Your task to perform on an android device: check android version Image 0: 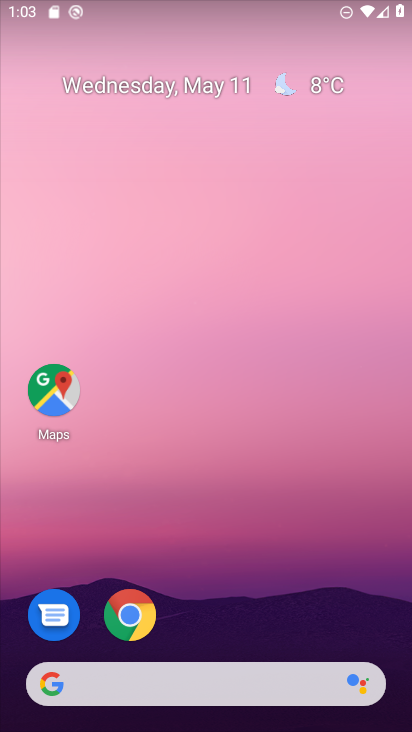
Step 0: drag from (312, 554) to (320, 66)
Your task to perform on an android device: check android version Image 1: 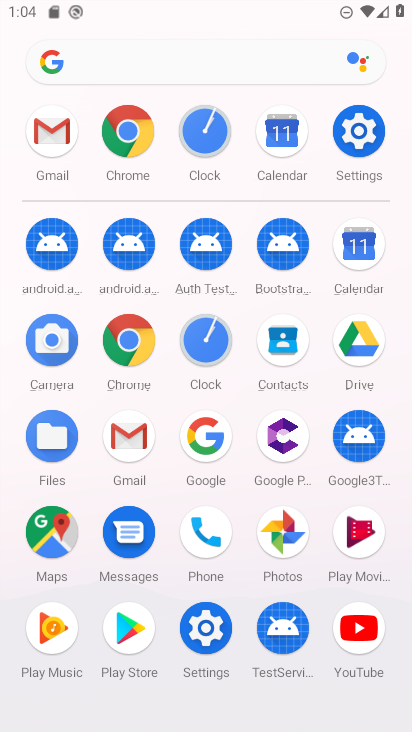
Step 1: click (353, 133)
Your task to perform on an android device: check android version Image 2: 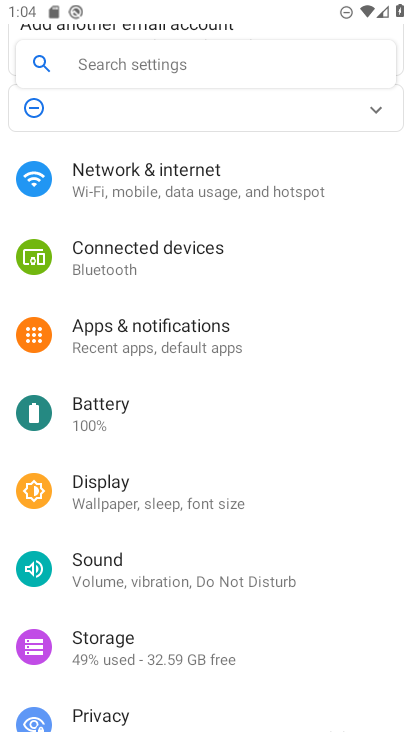
Step 2: drag from (217, 581) to (222, 206)
Your task to perform on an android device: check android version Image 3: 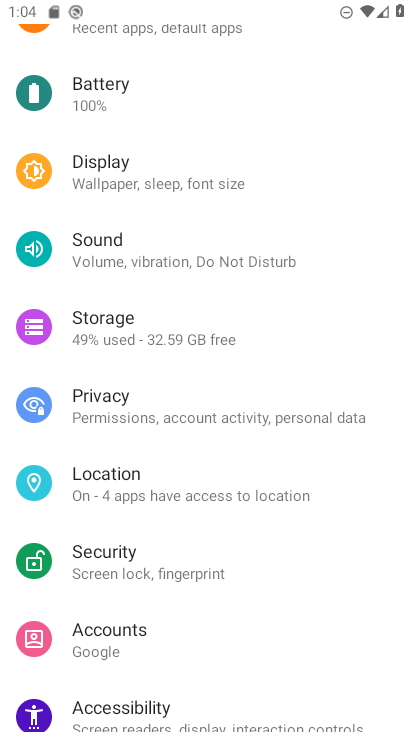
Step 3: drag from (102, 658) to (144, 287)
Your task to perform on an android device: check android version Image 4: 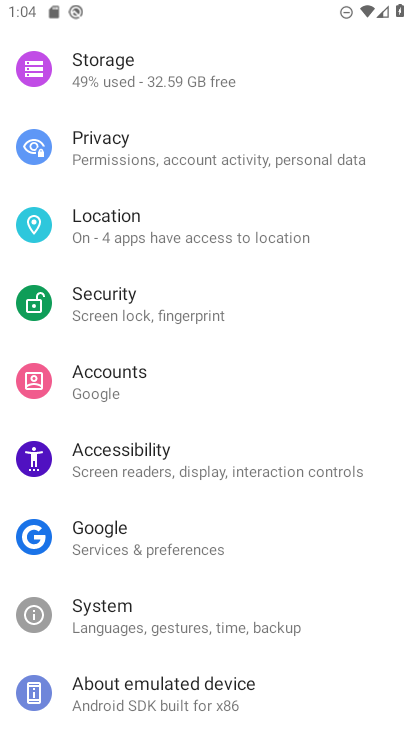
Step 4: drag from (165, 628) to (239, 243)
Your task to perform on an android device: check android version Image 5: 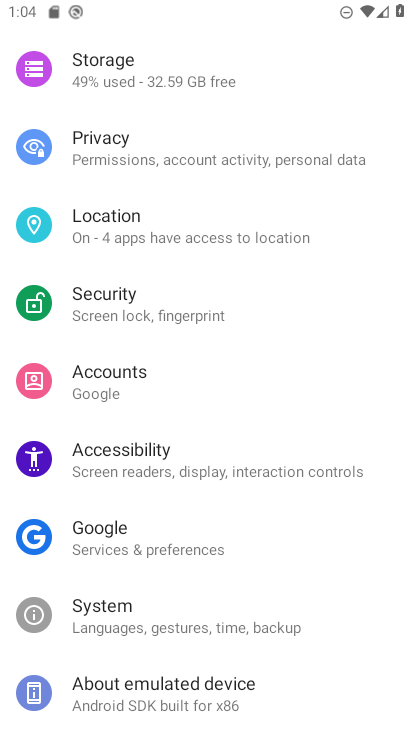
Step 5: click (162, 684)
Your task to perform on an android device: check android version Image 6: 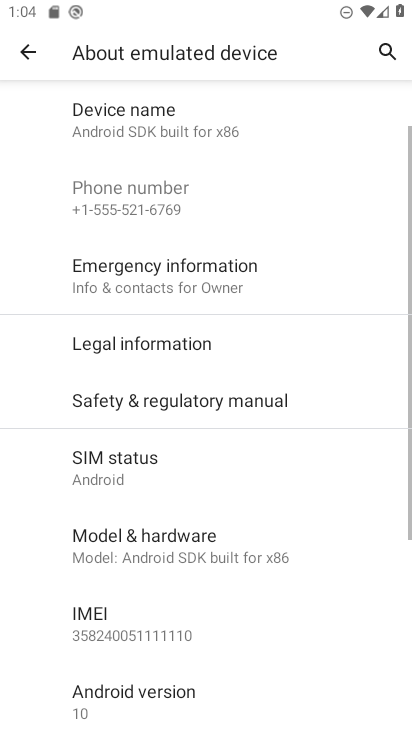
Step 6: drag from (162, 680) to (168, 390)
Your task to perform on an android device: check android version Image 7: 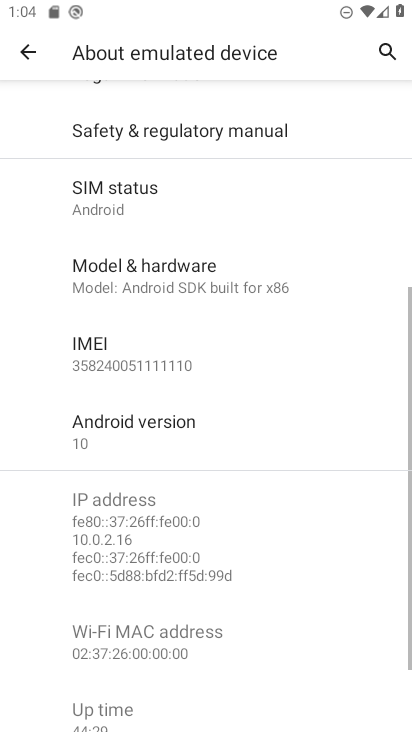
Step 7: click (153, 423)
Your task to perform on an android device: check android version Image 8: 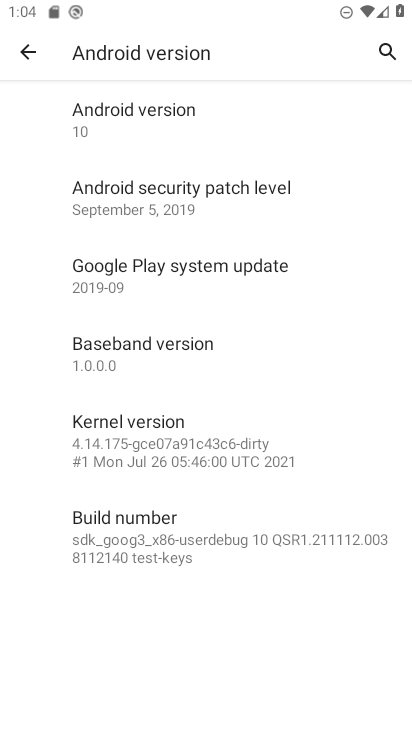
Step 8: task complete